Your task to perform on an android device: turn smart compose on in the gmail app Image 0: 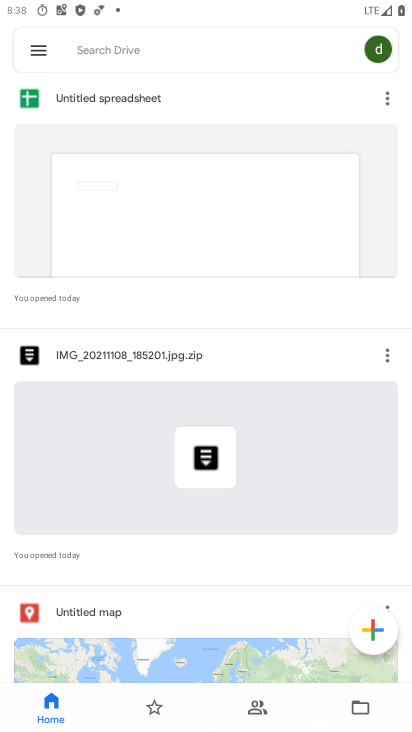
Step 0: drag from (267, 611) to (309, 209)
Your task to perform on an android device: turn smart compose on in the gmail app Image 1: 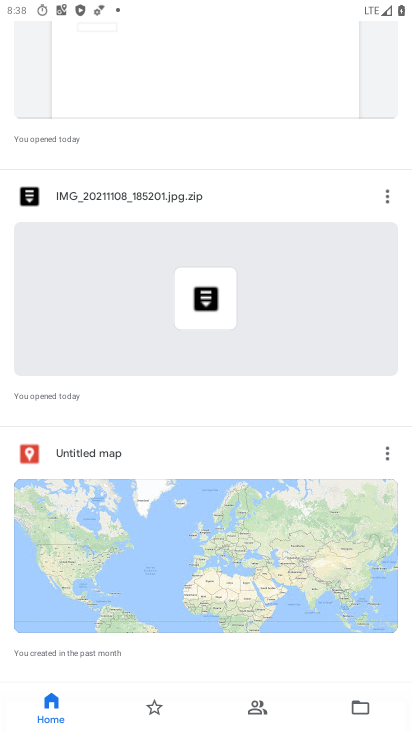
Step 1: press home button
Your task to perform on an android device: turn smart compose on in the gmail app Image 2: 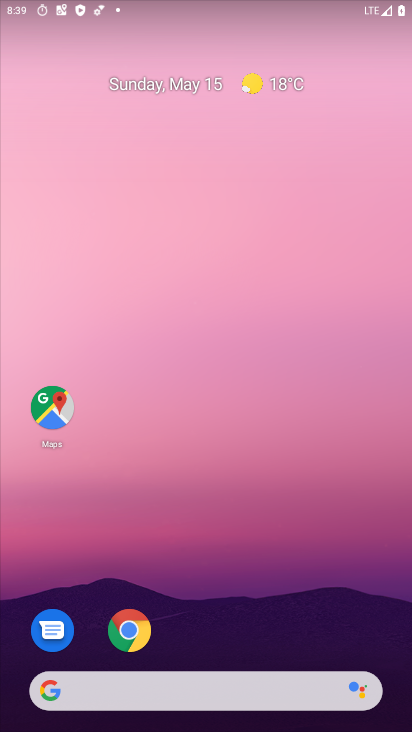
Step 2: drag from (147, 632) to (167, 107)
Your task to perform on an android device: turn smart compose on in the gmail app Image 3: 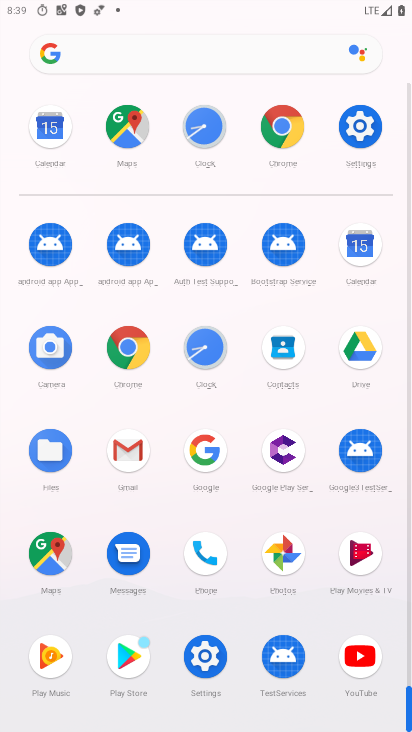
Step 3: click (122, 450)
Your task to perform on an android device: turn smart compose on in the gmail app Image 4: 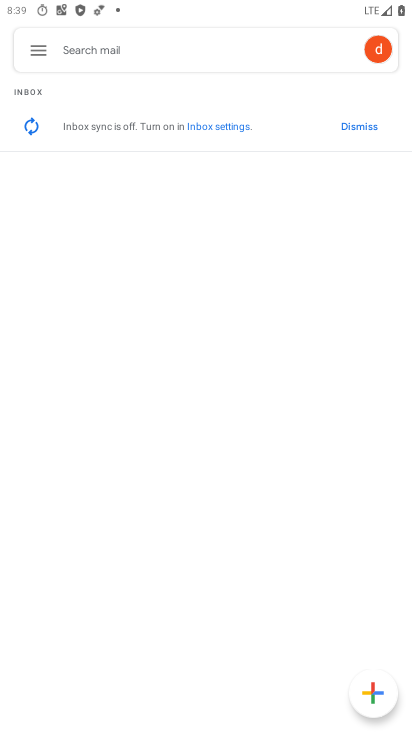
Step 4: drag from (208, 367) to (243, 153)
Your task to perform on an android device: turn smart compose on in the gmail app Image 5: 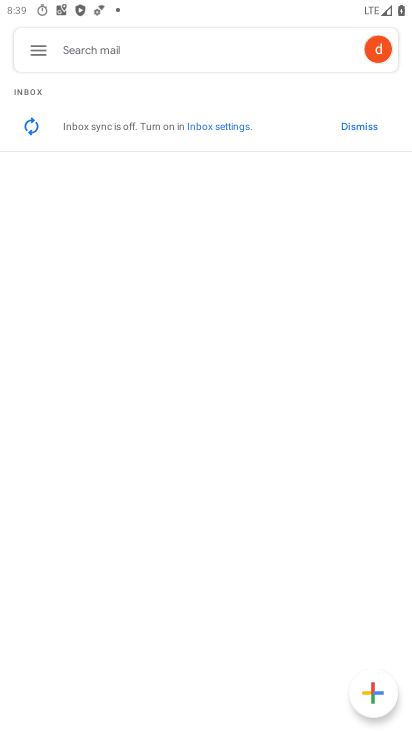
Step 5: click (42, 56)
Your task to perform on an android device: turn smart compose on in the gmail app Image 6: 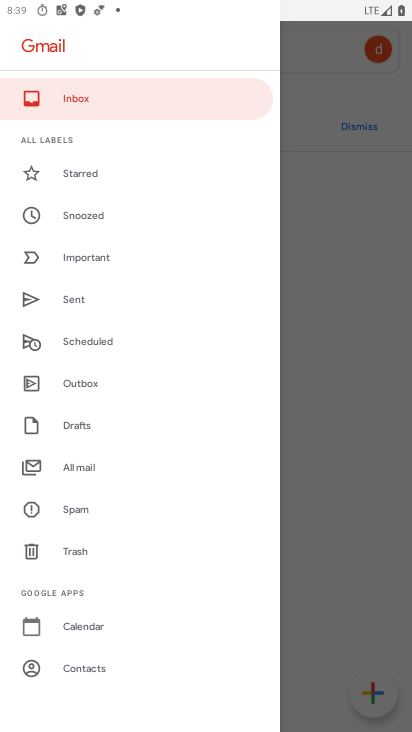
Step 6: click (214, 182)
Your task to perform on an android device: turn smart compose on in the gmail app Image 7: 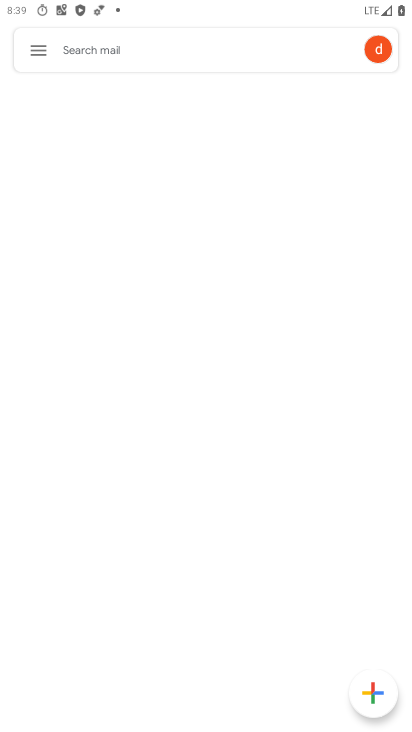
Step 7: drag from (97, 608) to (193, 189)
Your task to perform on an android device: turn smart compose on in the gmail app Image 8: 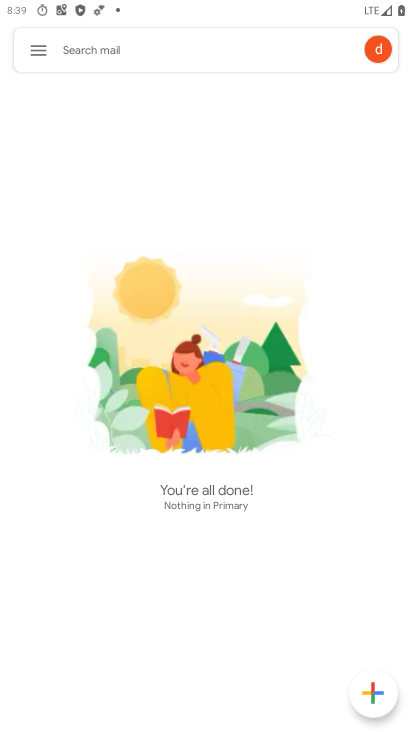
Step 8: click (39, 57)
Your task to perform on an android device: turn smart compose on in the gmail app Image 9: 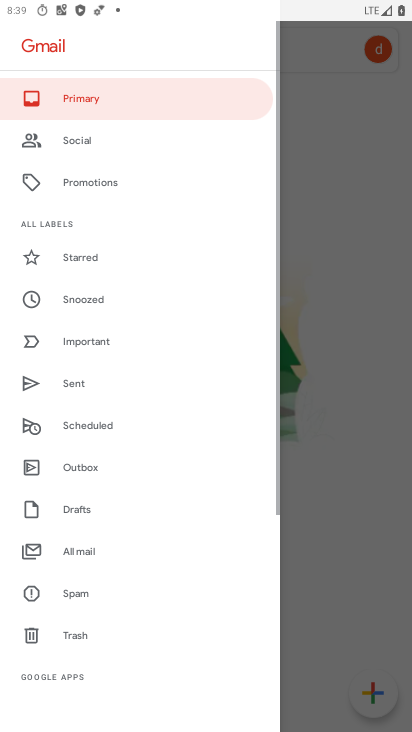
Step 9: drag from (140, 581) to (219, 126)
Your task to perform on an android device: turn smart compose on in the gmail app Image 10: 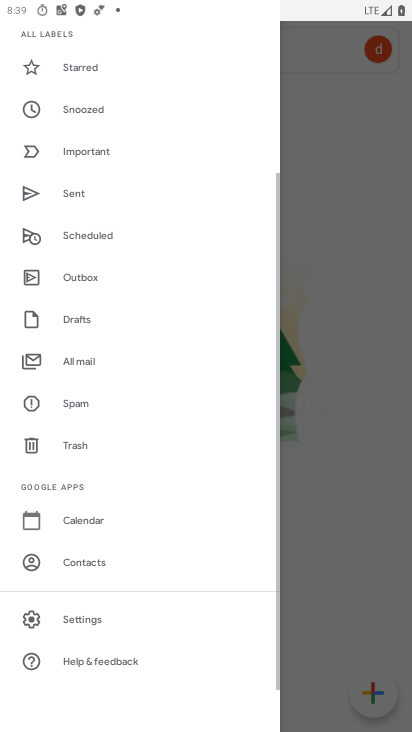
Step 10: click (101, 620)
Your task to perform on an android device: turn smart compose on in the gmail app Image 11: 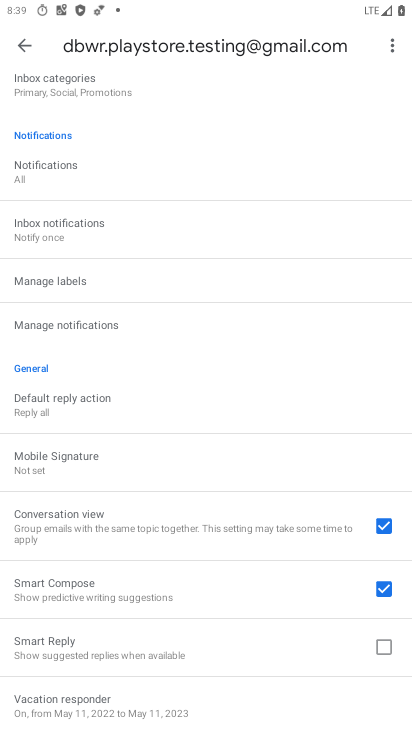
Step 11: task complete